Your task to perform on an android device: see tabs open on other devices in the chrome app Image 0: 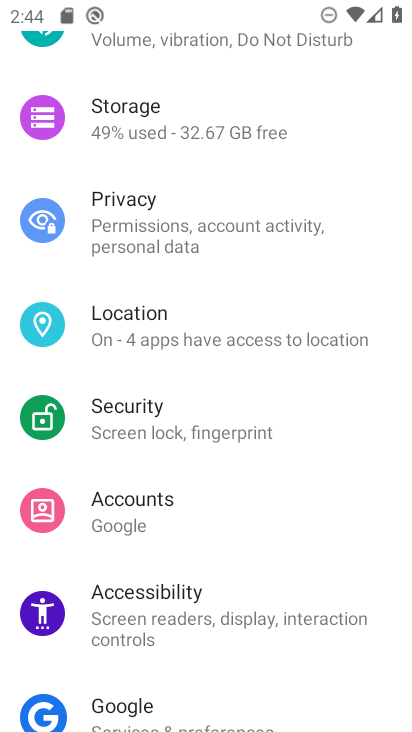
Step 0: press home button
Your task to perform on an android device: see tabs open on other devices in the chrome app Image 1: 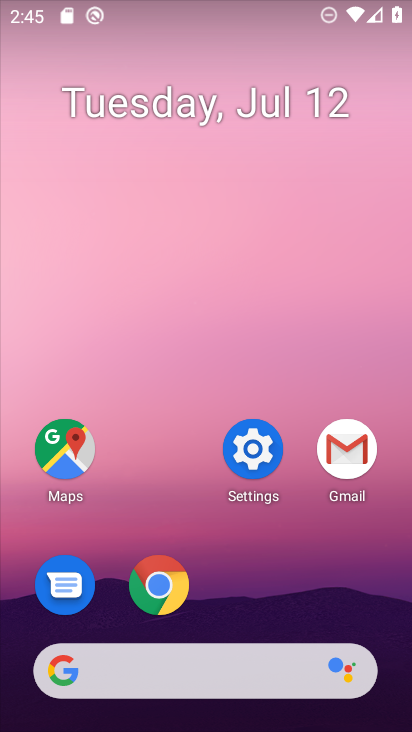
Step 1: click (159, 589)
Your task to perform on an android device: see tabs open on other devices in the chrome app Image 2: 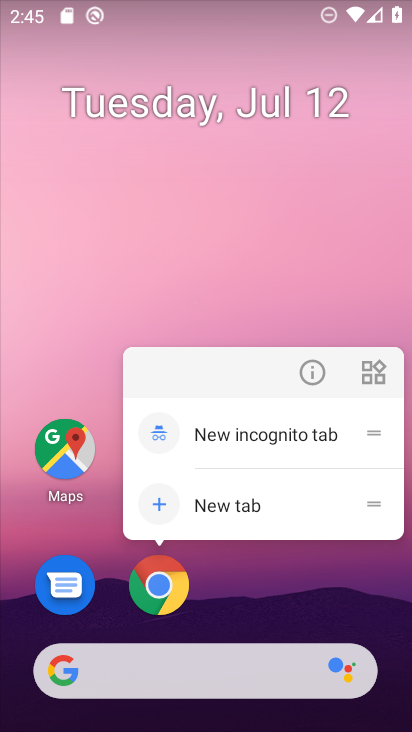
Step 2: click (11, 343)
Your task to perform on an android device: see tabs open on other devices in the chrome app Image 3: 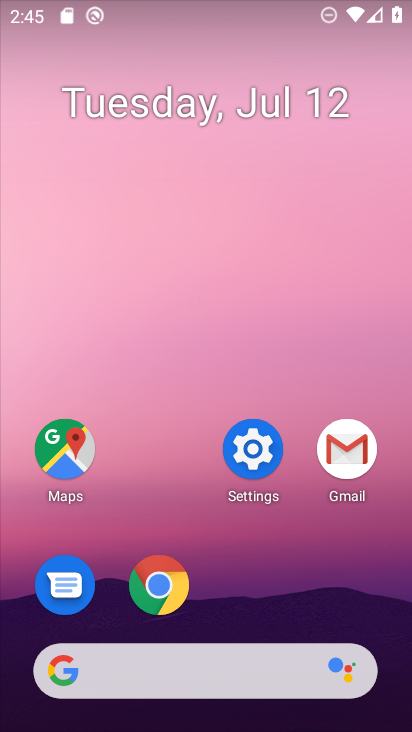
Step 3: click (174, 567)
Your task to perform on an android device: see tabs open on other devices in the chrome app Image 4: 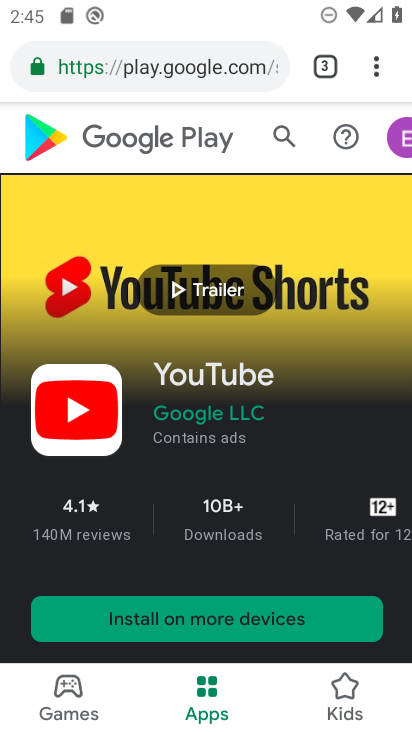
Step 4: press back button
Your task to perform on an android device: see tabs open on other devices in the chrome app Image 5: 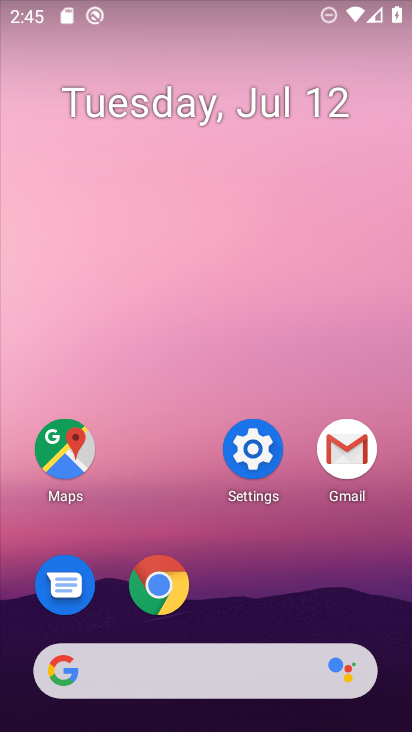
Step 5: click (168, 579)
Your task to perform on an android device: see tabs open on other devices in the chrome app Image 6: 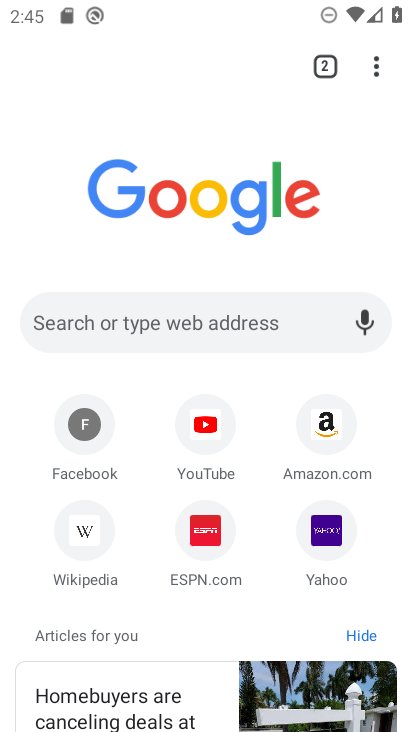
Step 6: click (376, 66)
Your task to perform on an android device: see tabs open on other devices in the chrome app Image 7: 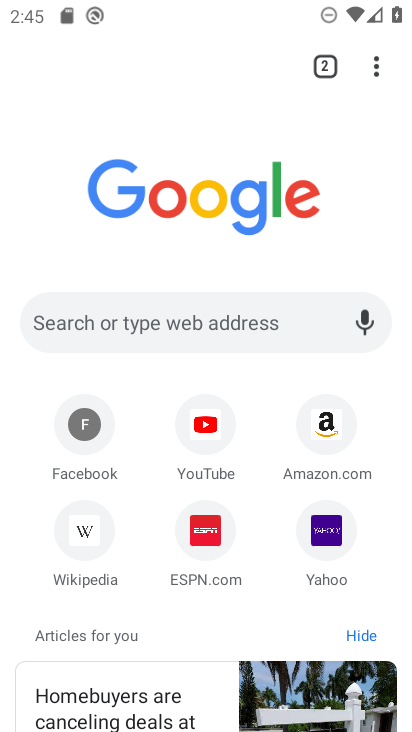
Step 7: click (378, 69)
Your task to perform on an android device: see tabs open on other devices in the chrome app Image 8: 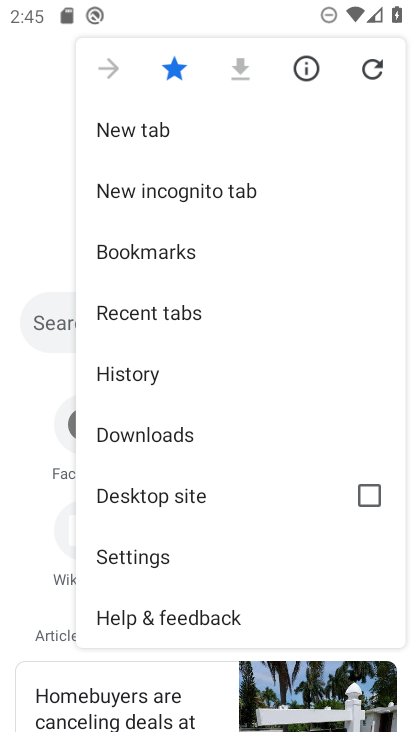
Step 8: click (136, 307)
Your task to perform on an android device: see tabs open on other devices in the chrome app Image 9: 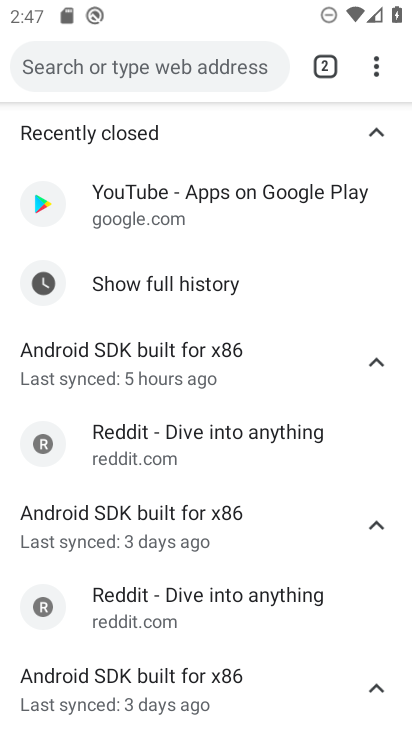
Step 9: task complete